Your task to perform on an android device: Open Google Maps Image 0: 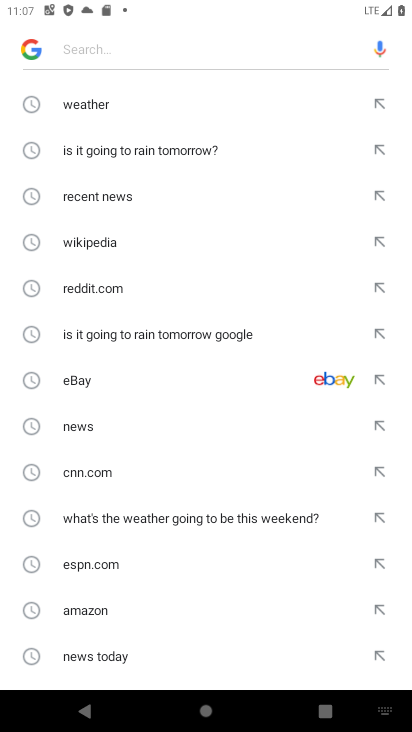
Step 0: press home button
Your task to perform on an android device: Open Google Maps Image 1: 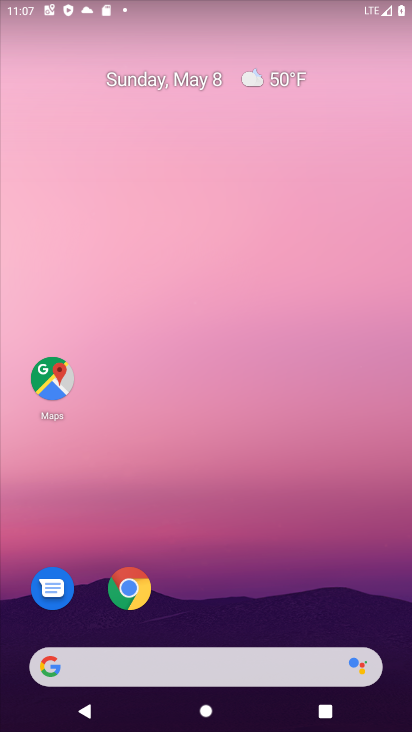
Step 1: click (52, 378)
Your task to perform on an android device: Open Google Maps Image 2: 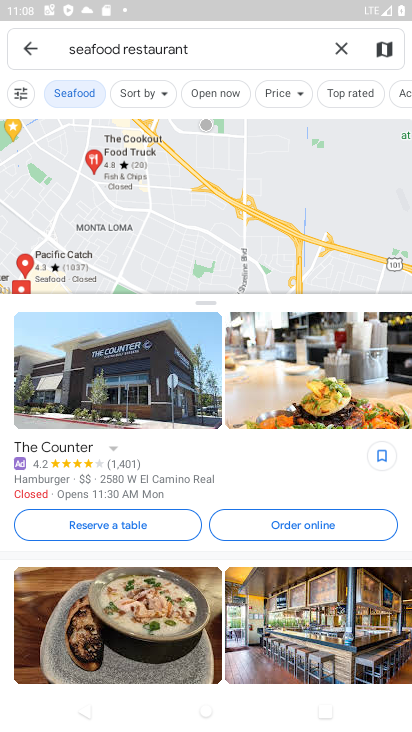
Step 2: task complete